Your task to perform on an android device: Open Google Chrome and open the bookmarks view Image 0: 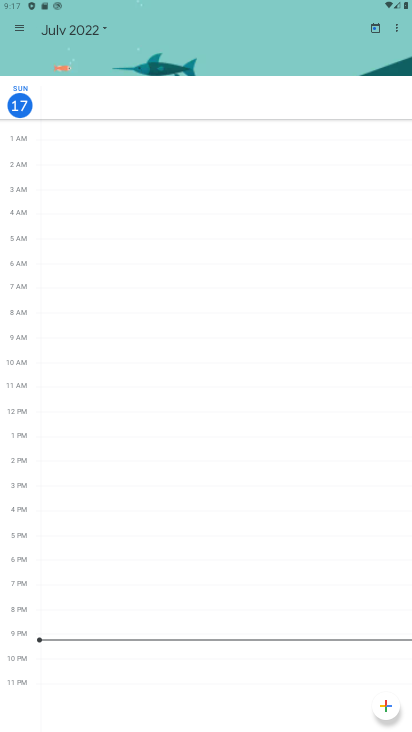
Step 0: press home button
Your task to perform on an android device: Open Google Chrome and open the bookmarks view Image 1: 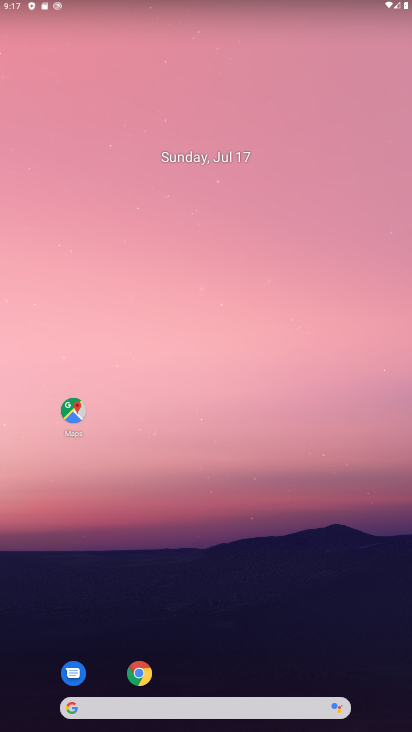
Step 1: click (143, 672)
Your task to perform on an android device: Open Google Chrome and open the bookmarks view Image 2: 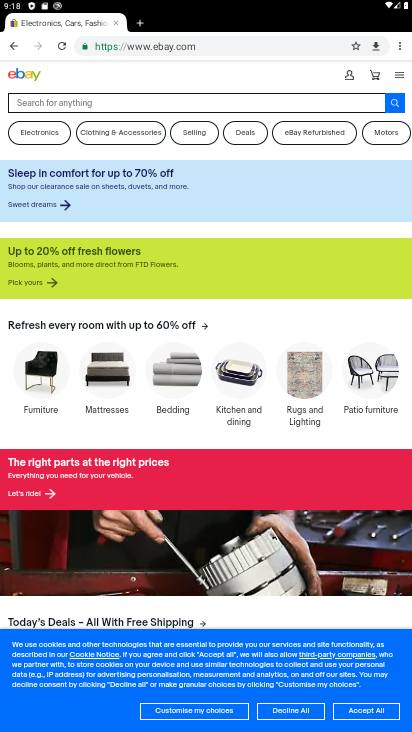
Step 2: click (401, 47)
Your task to perform on an android device: Open Google Chrome and open the bookmarks view Image 3: 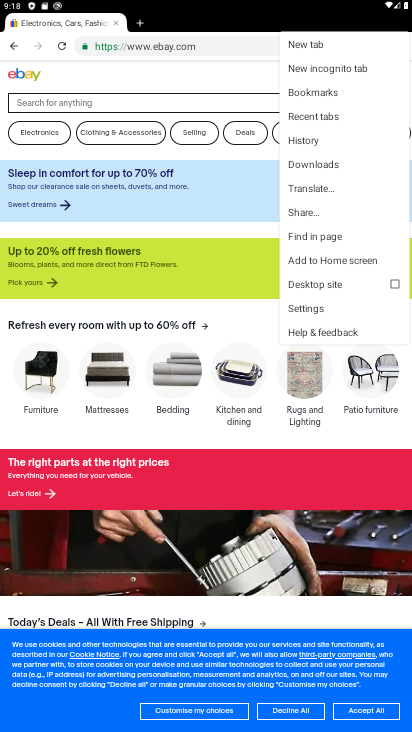
Step 3: click (304, 95)
Your task to perform on an android device: Open Google Chrome and open the bookmarks view Image 4: 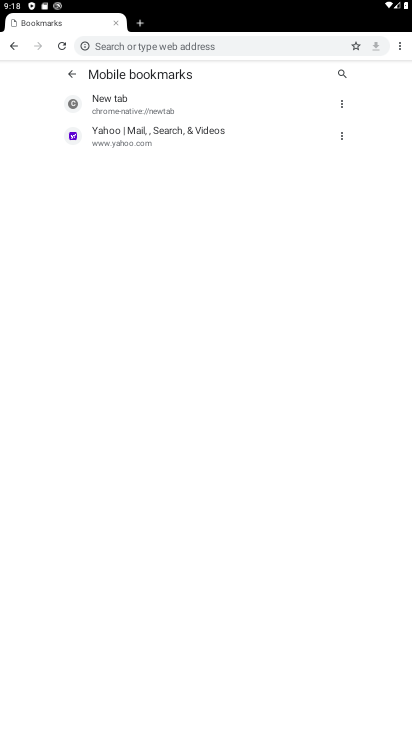
Step 4: task complete